Your task to perform on an android device: Search for Italian restaurants on Maps Image 0: 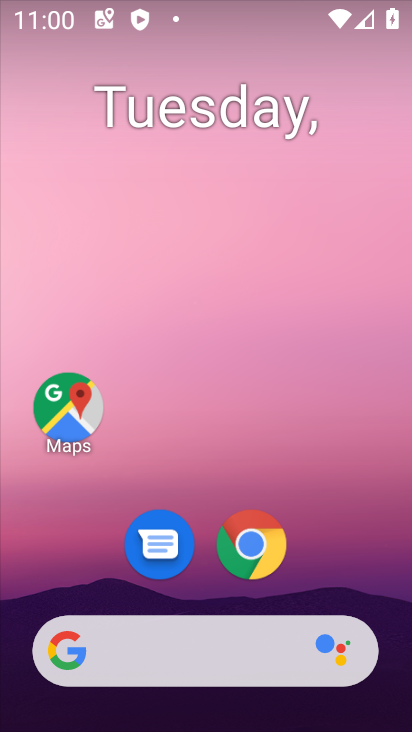
Step 0: drag from (372, 620) to (265, 52)
Your task to perform on an android device: Search for Italian restaurants on Maps Image 1: 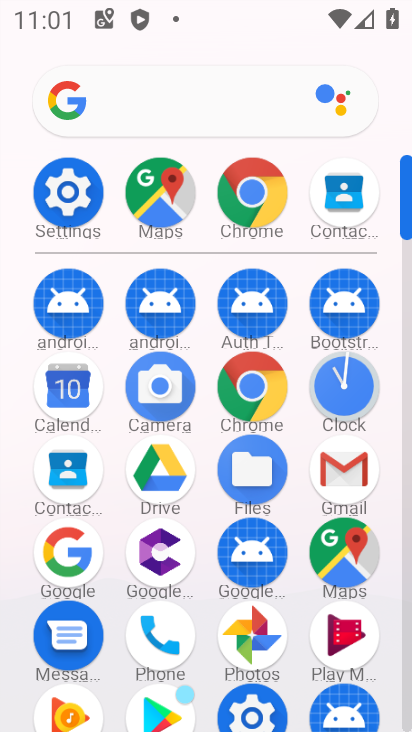
Step 1: click (328, 566)
Your task to perform on an android device: Search for Italian restaurants on Maps Image 2: 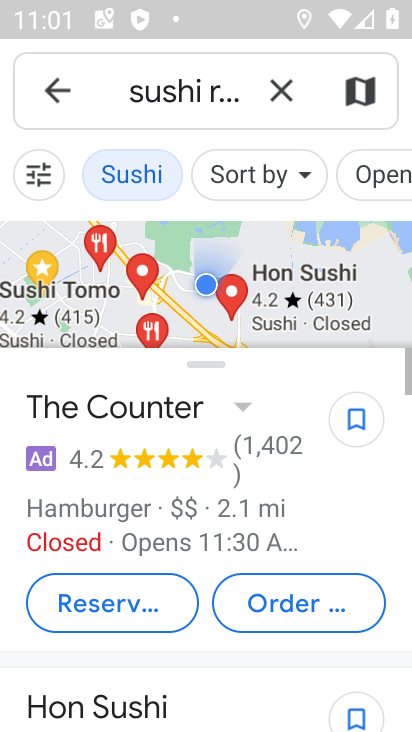
Step 2: click (283, 86)
Your task to perform on an android device: Search for Italian restaurants on Maps Image 3: 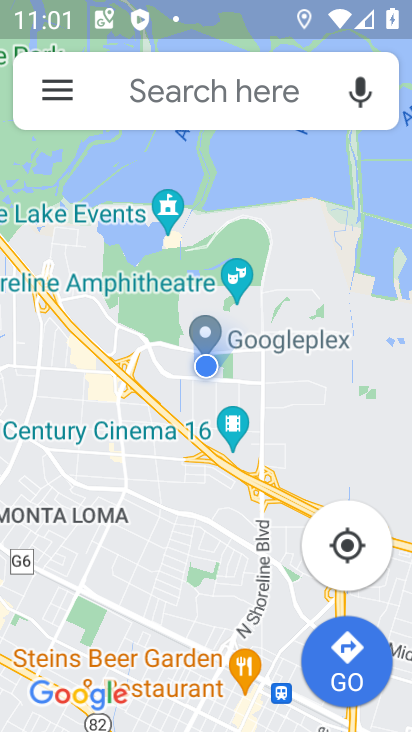
Step 3: click (177, 94)
Your task to perform on an android device: Search for Italian restaurants on Maps Image 4: 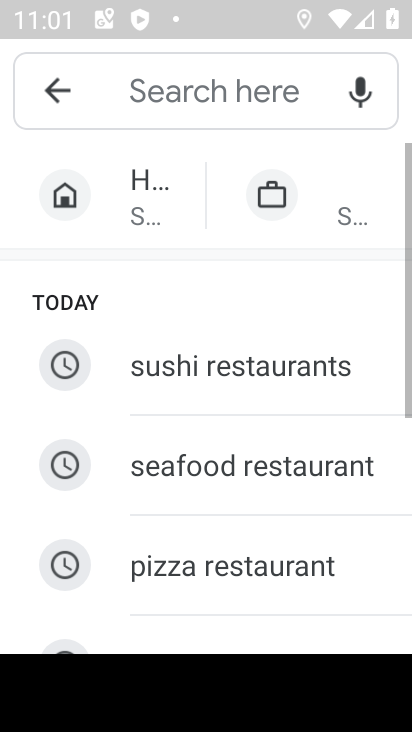
Step 4: drag from (269, 525) to (253, 81)
Your task to perform on an android device: Search for Italian restaurants on Maps Image 5: 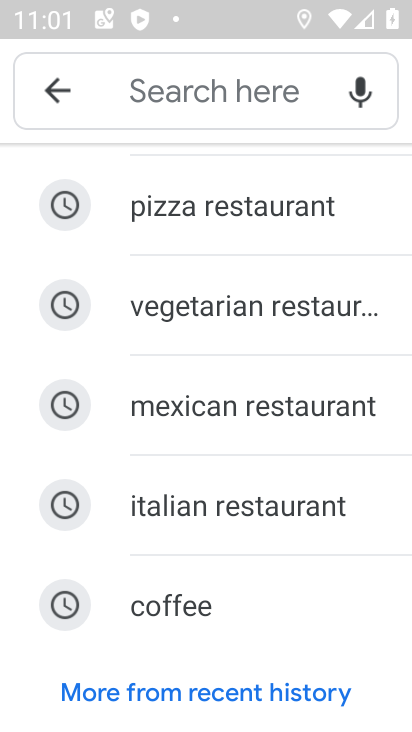
Step 5: click (207, 516)
Your task to perform on an android device: Search for Italian restaurants on Maps Image 6: 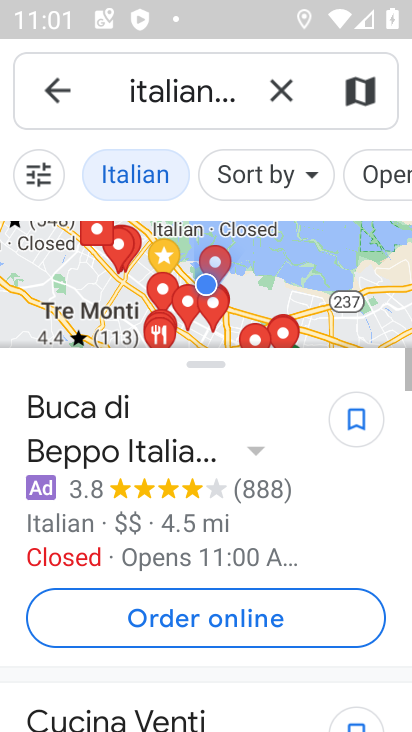
Step 6: task complete